Your task to perform on an android device: Go to accessibility settings Image 0: 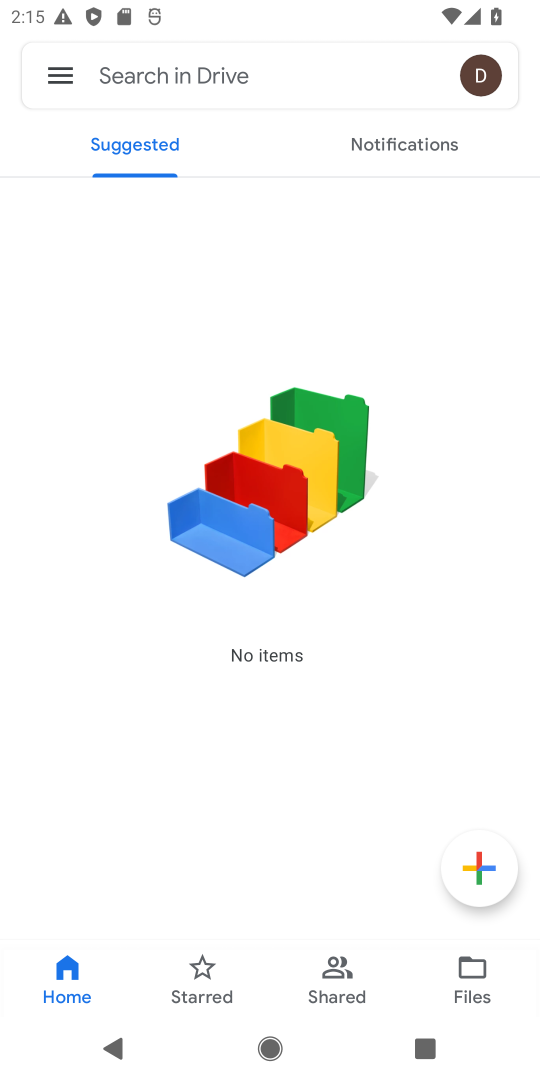
Step 0: press home button
Your task to perform on an android device: Go to accessibility settings Image 1: 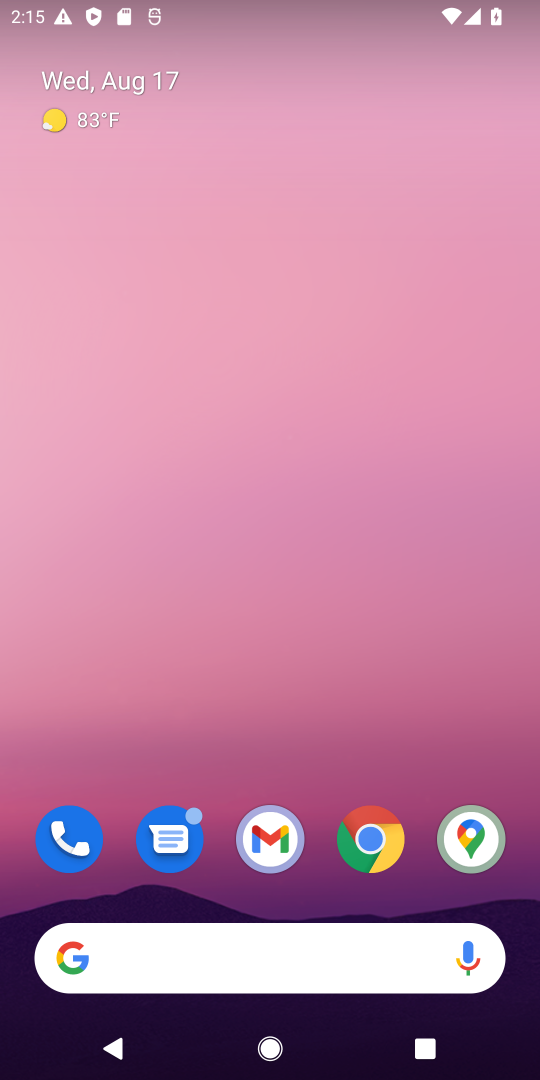
Step 1: drag from (322, 905) to (308, 123)
Your task to perform on an android device: Go to accessibility settings Image 2: 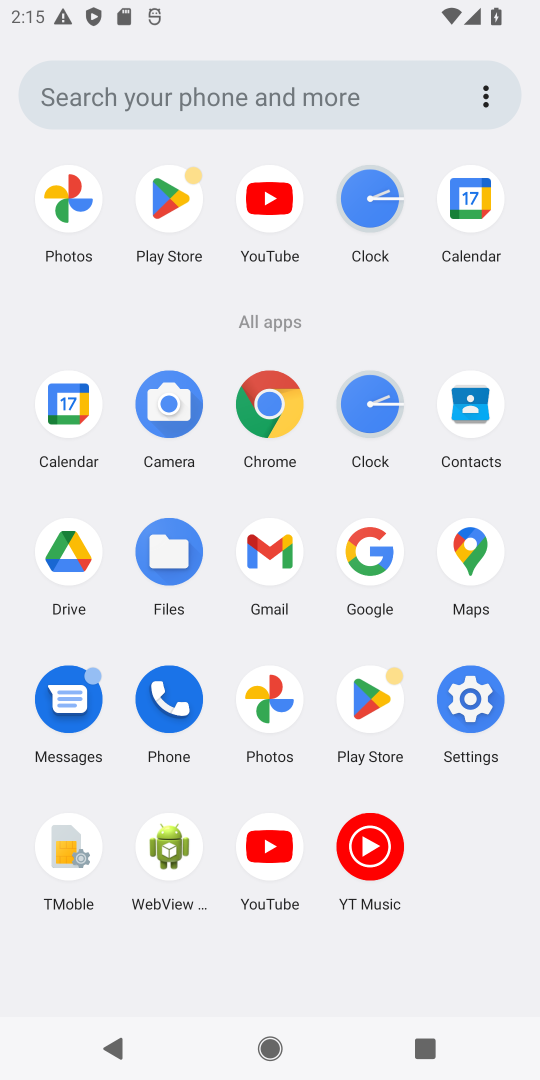
Step 2: click (474, 698)
Your task to perform on an android device: Go to accessibility settings Image 3: 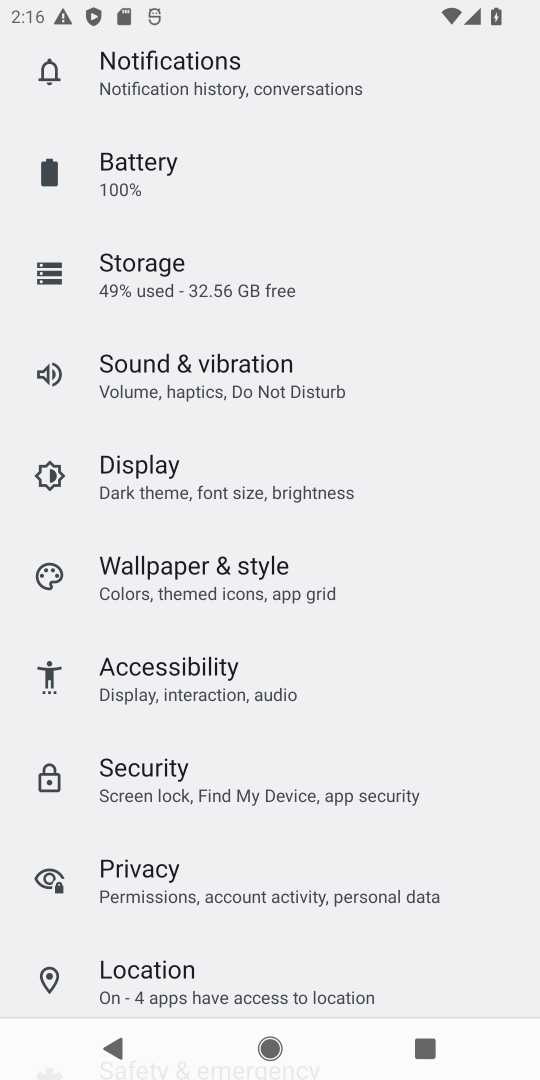
Step 3: click (115, 690)
Your task to perform on an android device: Go to accessibility settings Image 4: 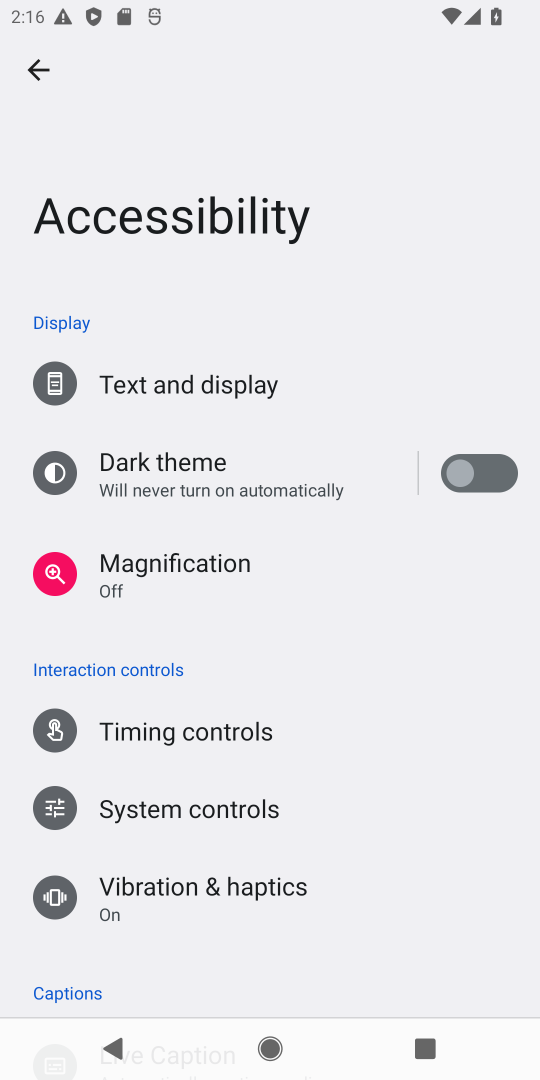
Step 4: task complete